Your task to perform on an android device: Open calendar and show me the first week of next month Image 0: 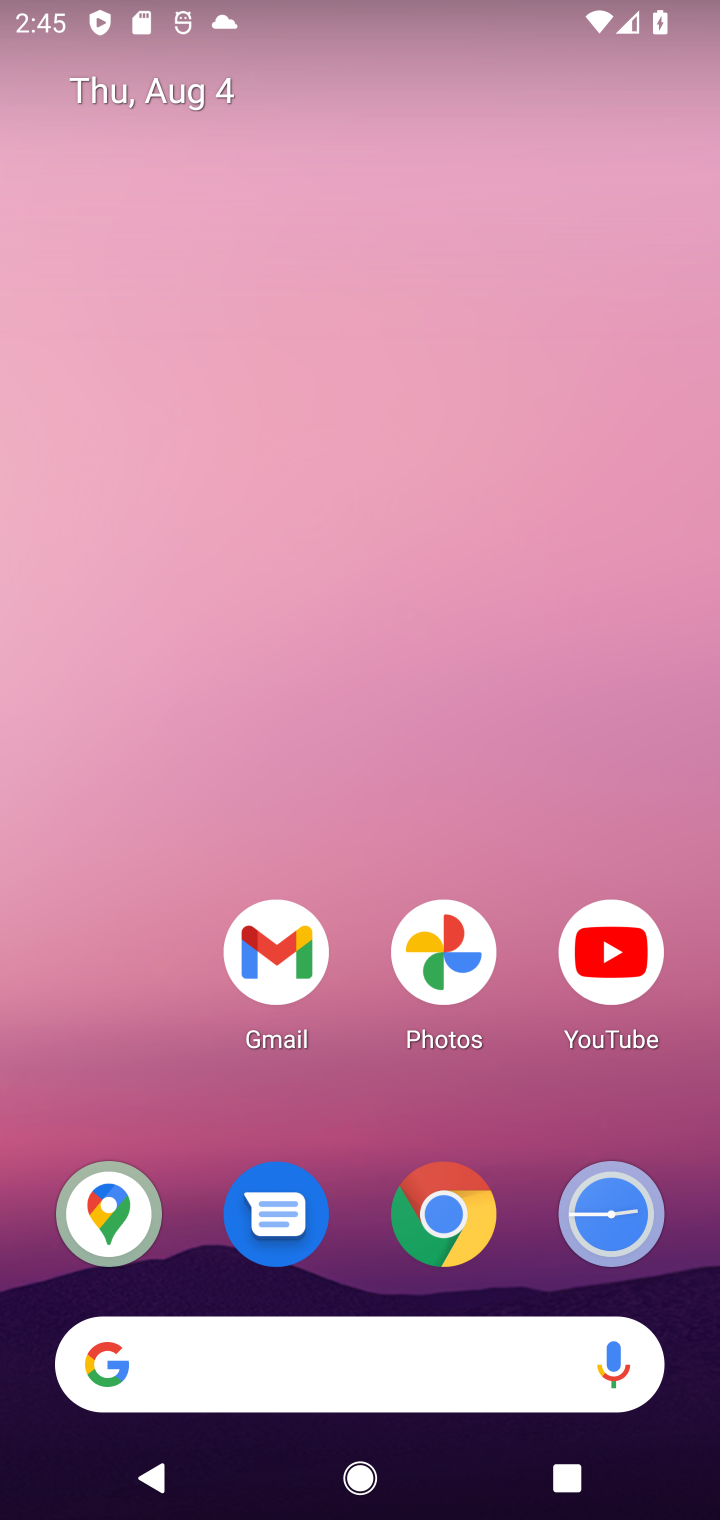
Step 0: drag from (115, 900) to (23, 167)
Your task to perform on an android device: Open calendar and show me the first week of next month Image 1: 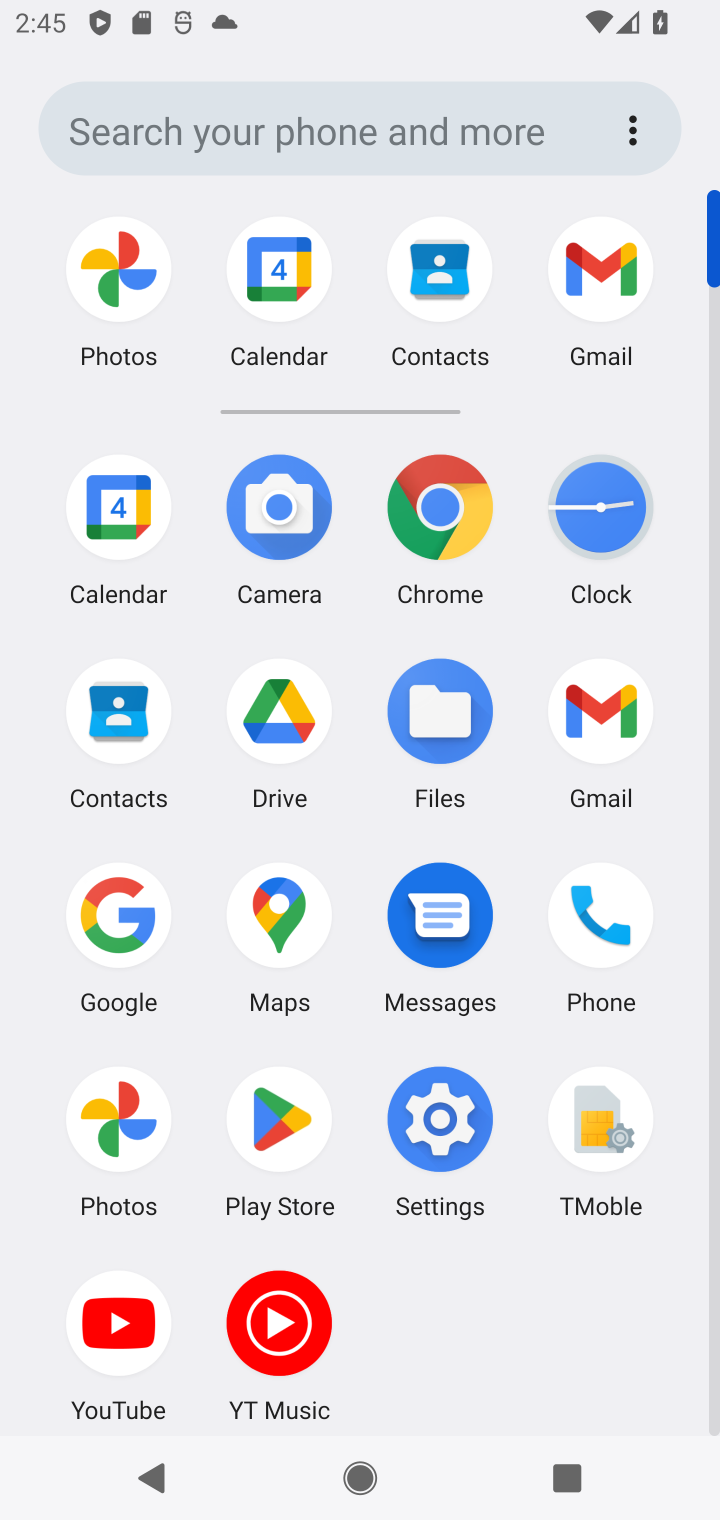
Step 1: click (110, 496)
Your task to perform on an android device: Open calendar and show me the first week of next month Image 2: 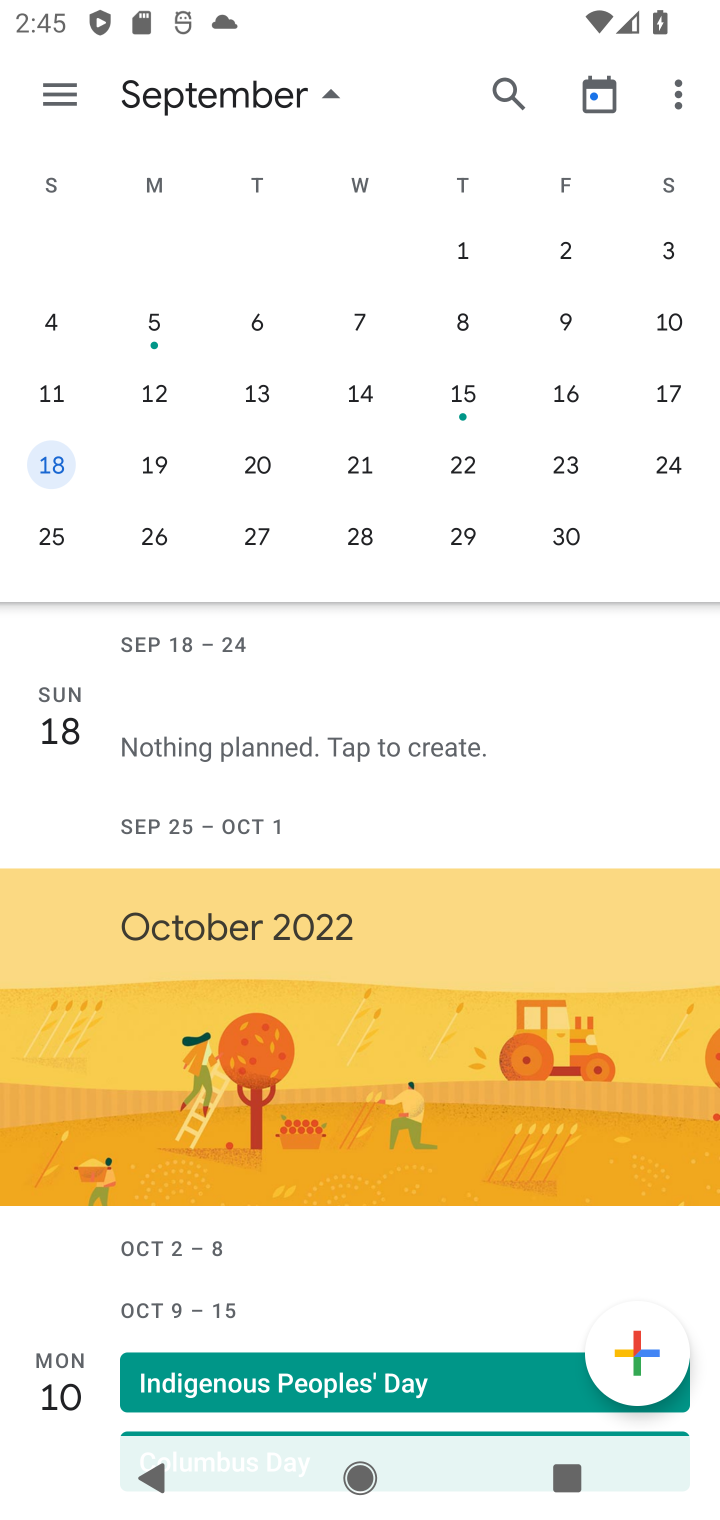
Step 2: drag from (632, 345) to (30, 363)
Your task to perform on an android device: Open calendar and show me the first week of next month Image 3: 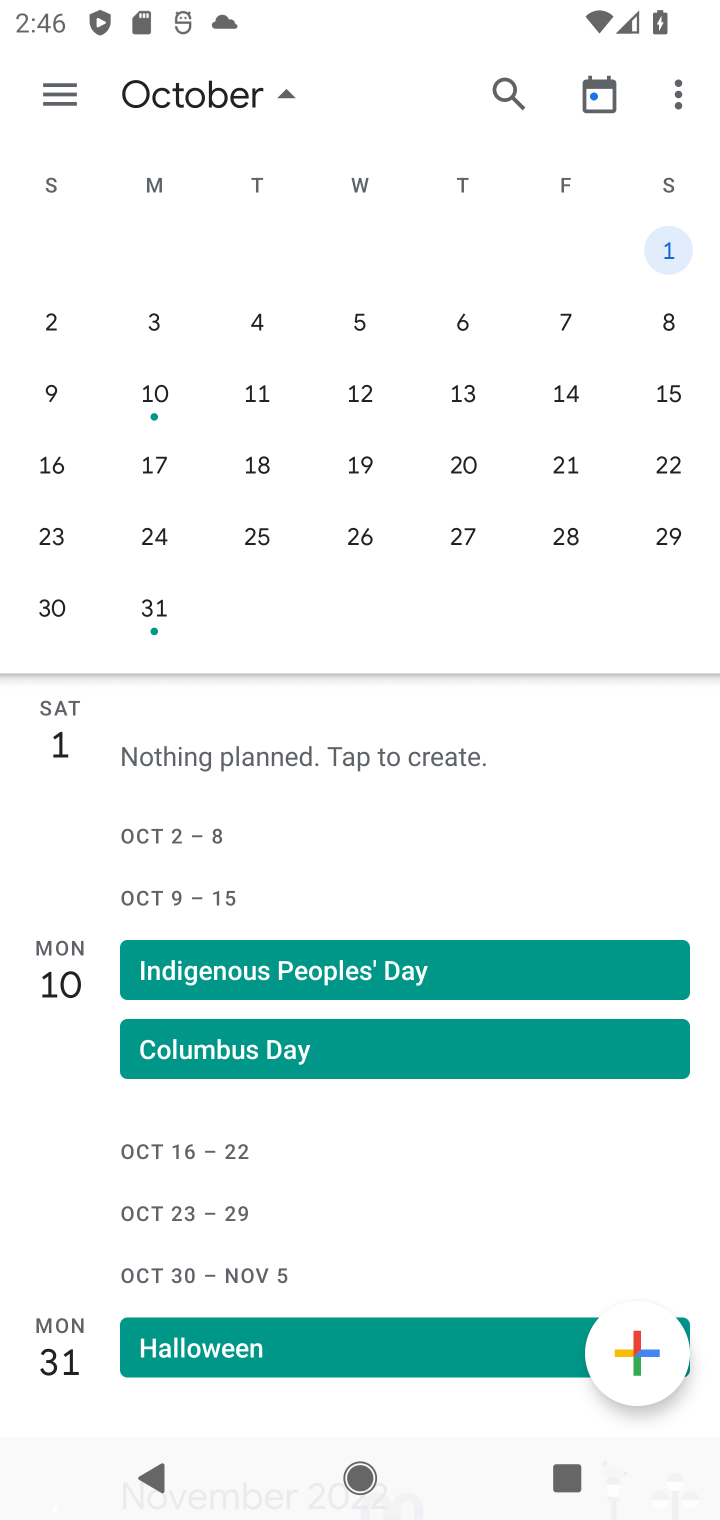
Step 3: click (41, 328)
Your task to perform on an android device: Open calendar and show me the first week of next month Image 4: 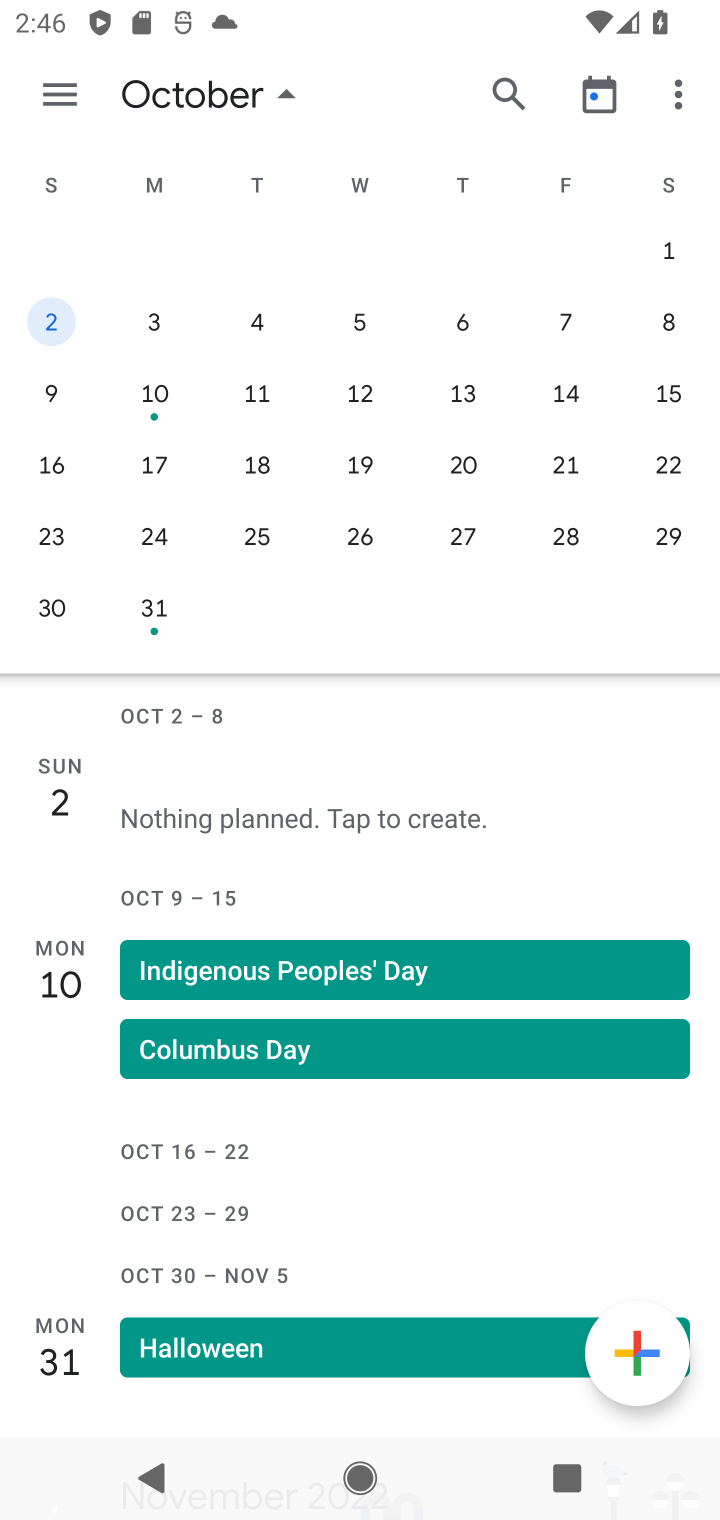
Step 4: task complete